Your task to perform on an android device: toggle show notifications on the lock screen Image 0: 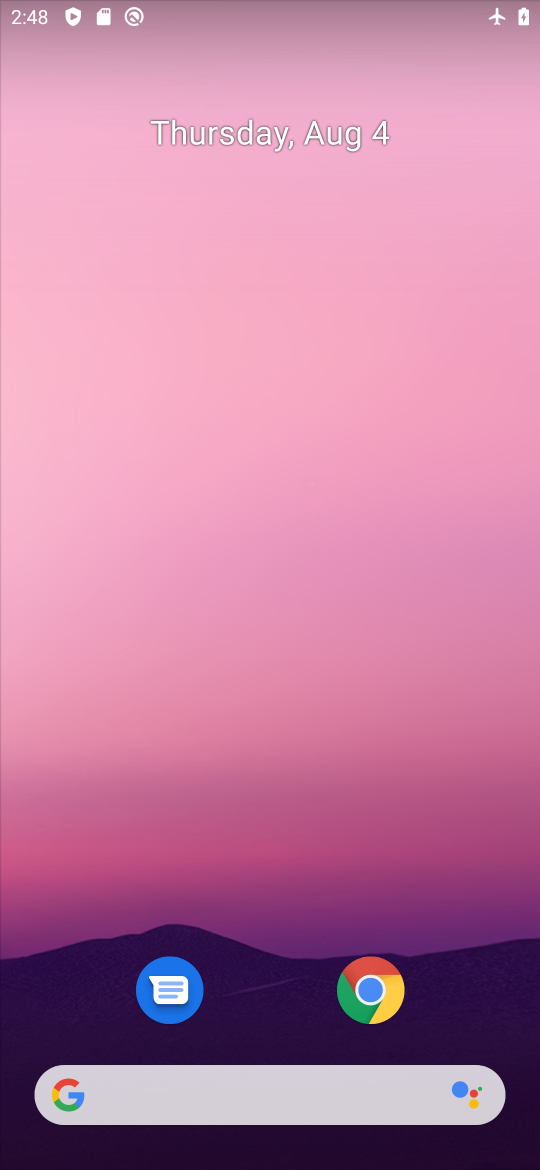
Step 0: drag from (225, 1048) to (270, 179)
Your task to perform on an android device: toggle show notifications on the lock screen Image 1: 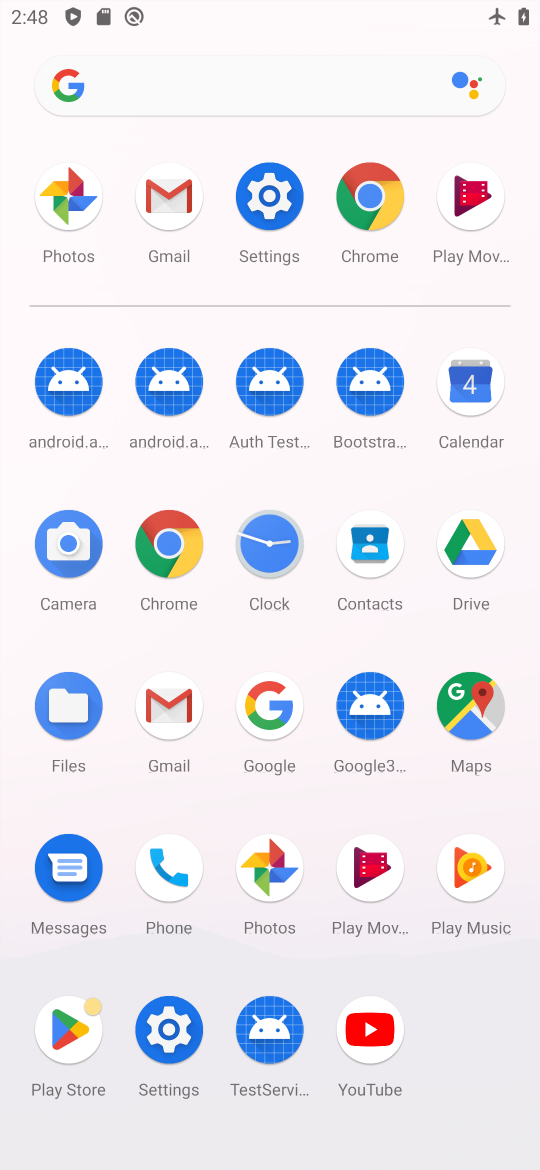
Step 1: click (270, 179)
Your task to perform on an android device: toggle show notifications on the lock screen Image 2: 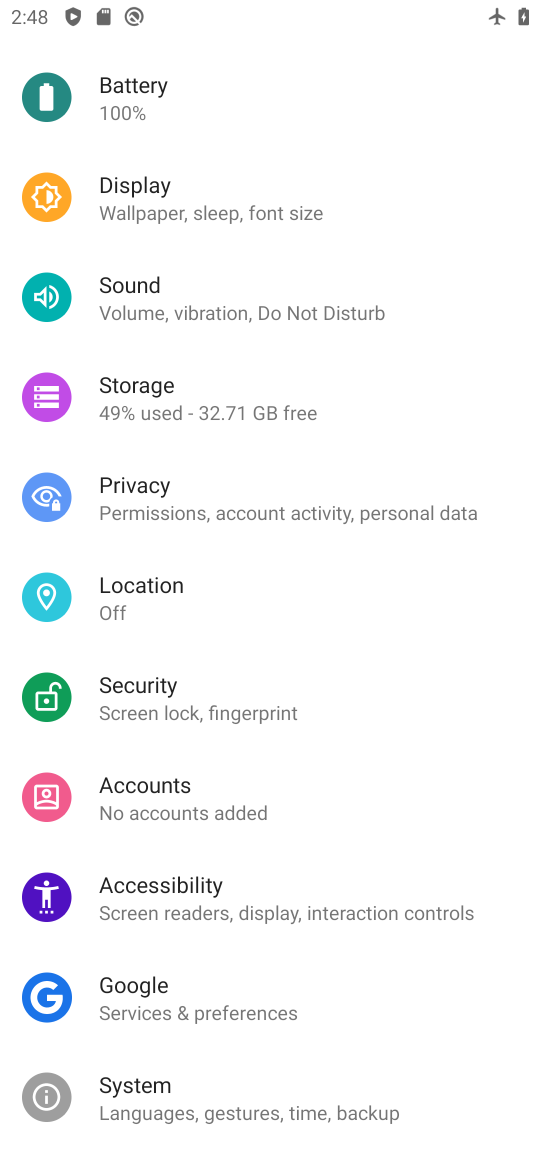
Step 2: click (209, 606)
Your task to perform on an android device: toggle show notifications on the lock screen Image 3: 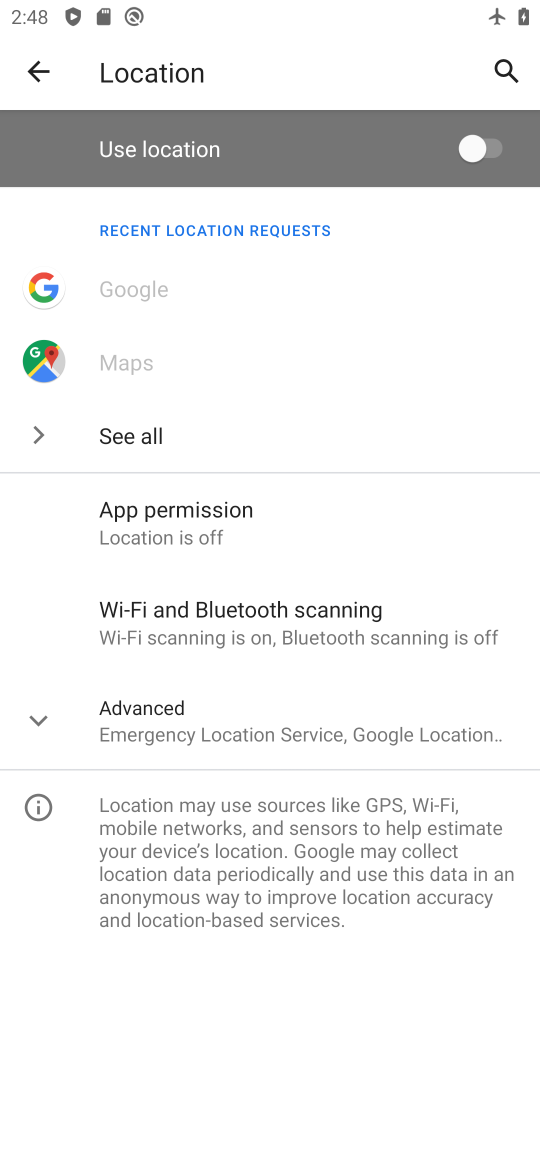
Step 3: task complete